Your task to perform on an android device: Search for seafood restaurants on Google Maps Image 0: 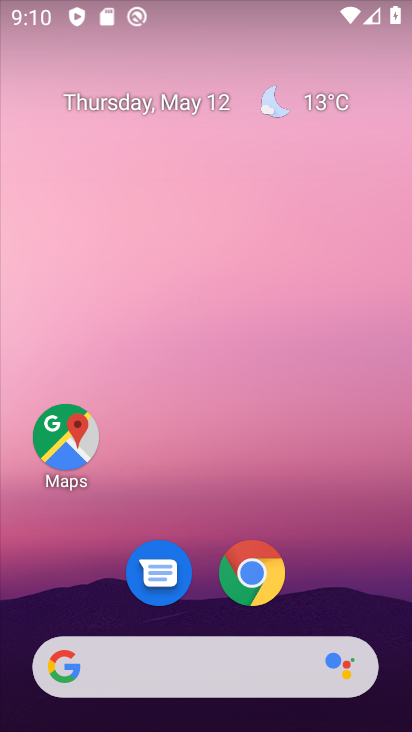
Step 0: click (40, 446)
Your task to perform on an android device: Search for seafood restaurants on Google Maps Image 1: 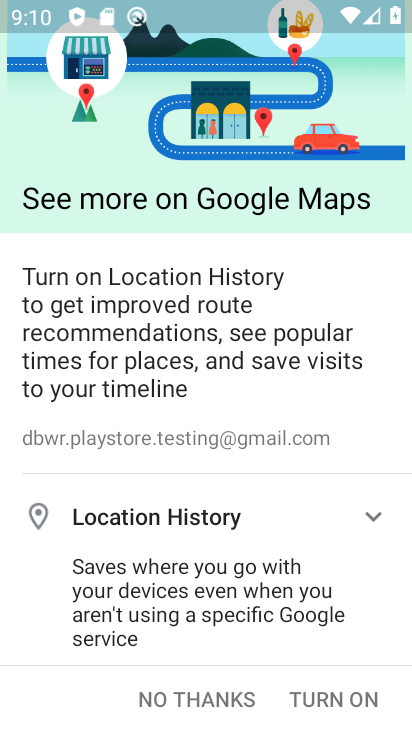
Step 1: click (326, 692)
Your task to perform on an android device: Search for seafood restaurants on Google Maps Image 2: 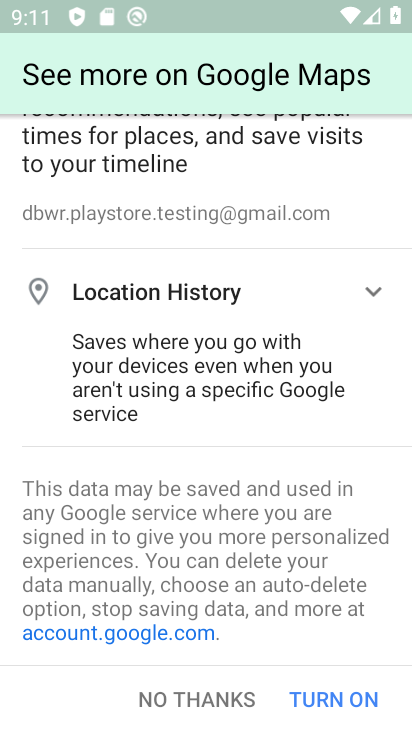
Step 2: click (342, 705)
Your task to perform on an android device: Search for seafood restaurants on Google Maps Image 3: 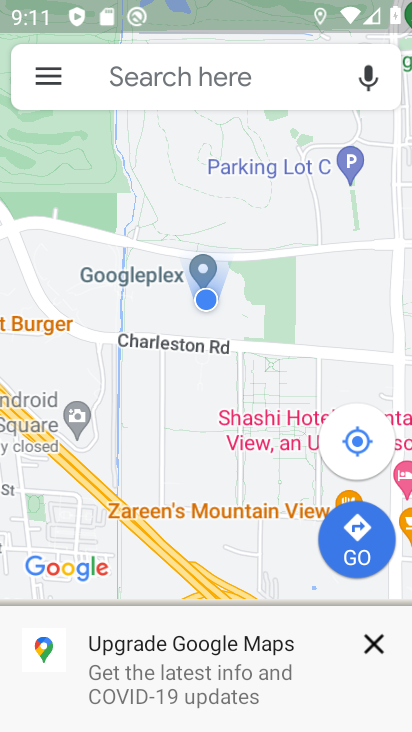
Step 3: click (180, 82)
Your task to perform on an android device: Search for seafood restaurants on Google Maps Image 4: 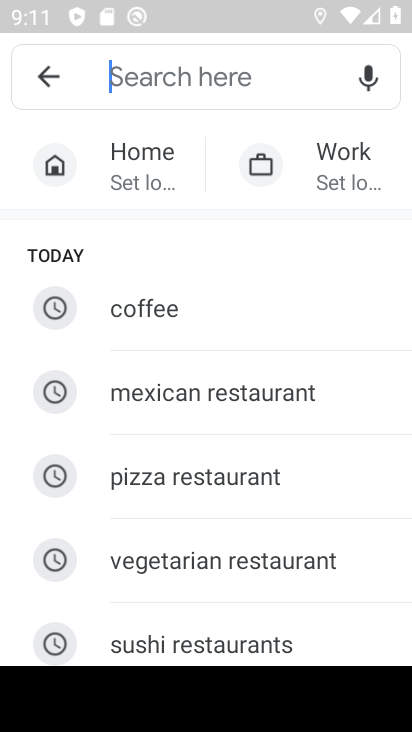
Step 4: type "seafood restaurants"
Your task to perform on an android device: Search for seafood restaurants on Google Maps Image 5: 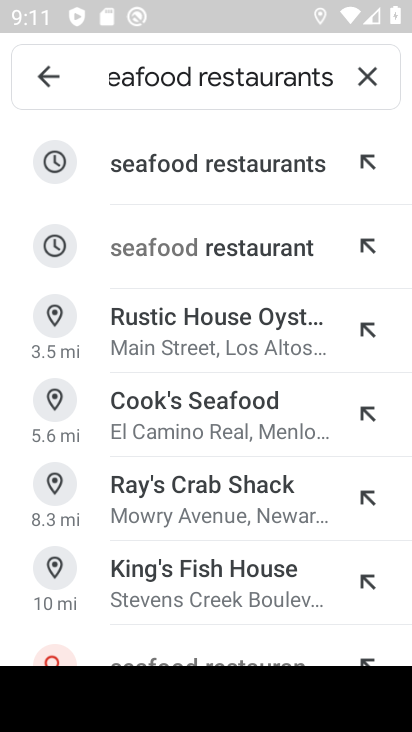
Step 5: click (254, 176)
Your task to perform on an android device: Search for seafood restaurants on Google Maps Image 6: 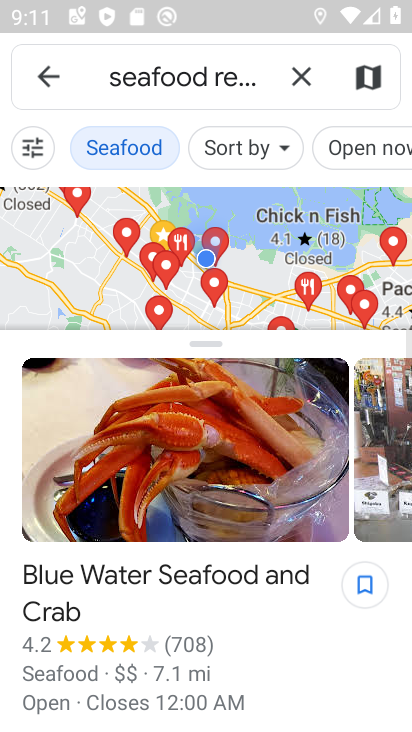
Step 6: task complete